Your task to perform on an android device: Search for Mexican restaurants on Maps Image 0: 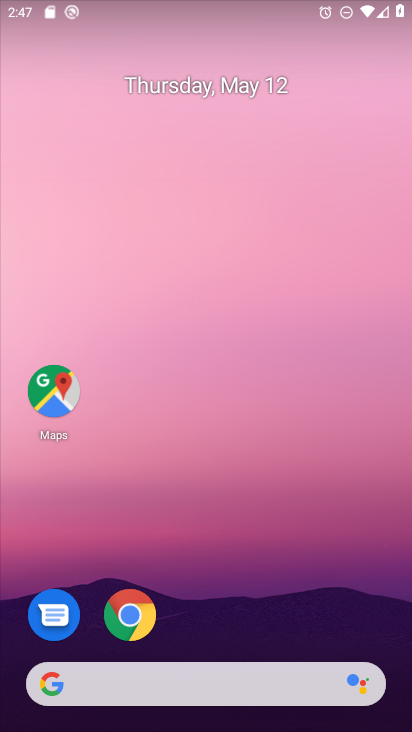
Step 0: drag from (210, 690) to (293, 0)
Your task to perform on an android device: Search for Mexican restaurants on Maps Image 1: 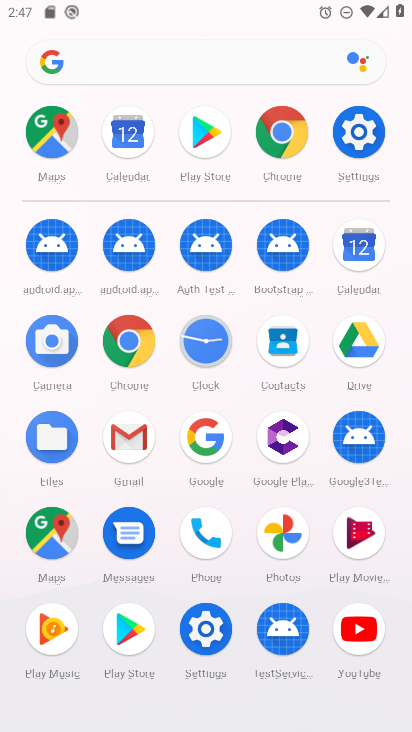
Step 1: click (38, 528)
Your task to perform on an android device: Search for Mexican restaurants on Maps Image 2: 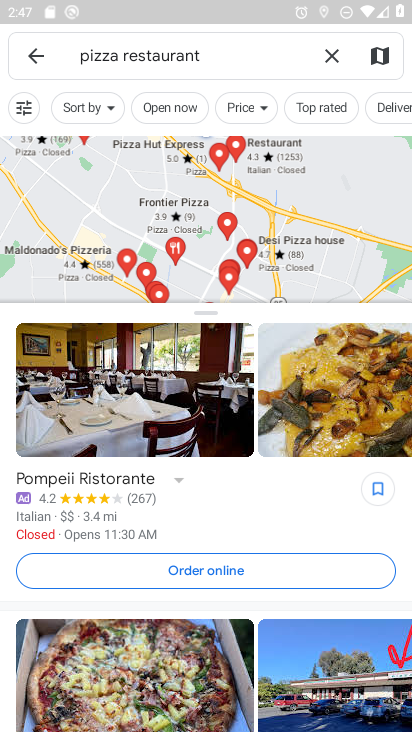
Step 2: click (330, 57)
Your task to perform on an android device: Search for Mexican restaurants on Maps Image 3: 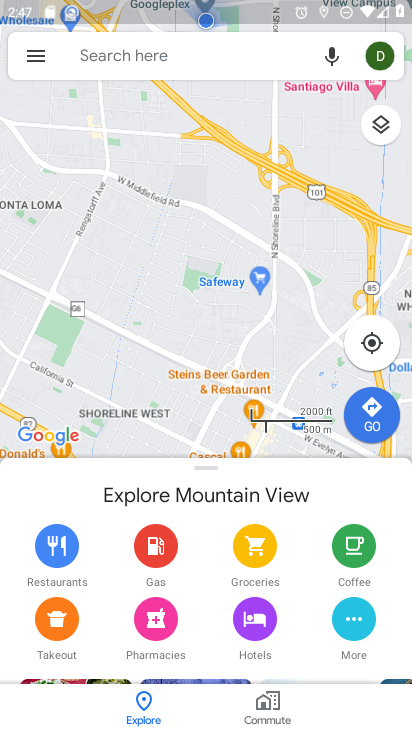
Step 3: click (229, 64)
Your task to perform on an android device: Search for Mexican restaurants on Maps Image 4: 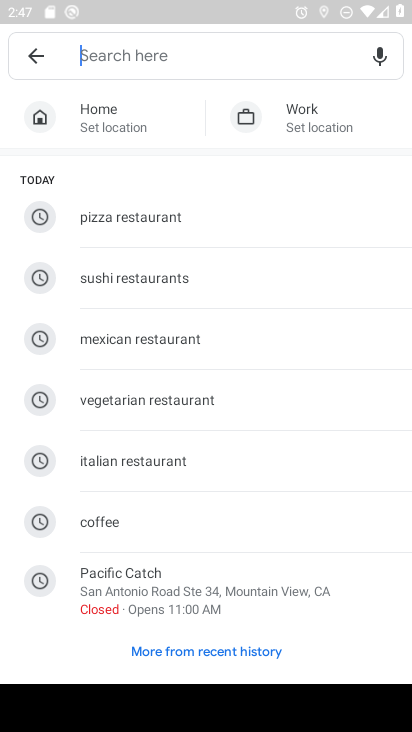
Step 4: click (240, 337)
Your task to perform on an android device: Search for Mexican restaurants on Maps Image 5: 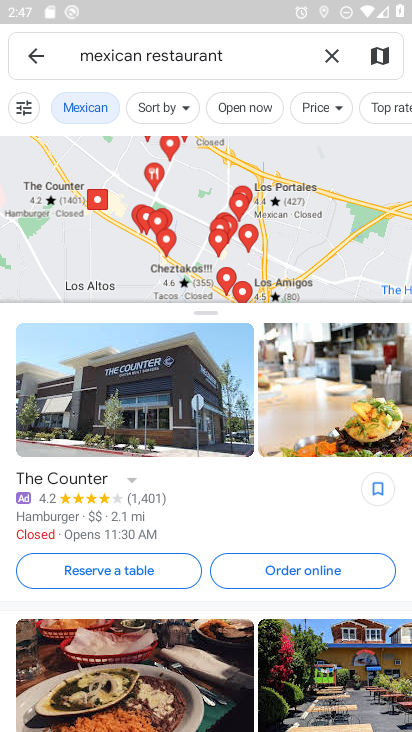
Step 5: task complete